Your task to perform on an android device: Go to notification settings Image 0: 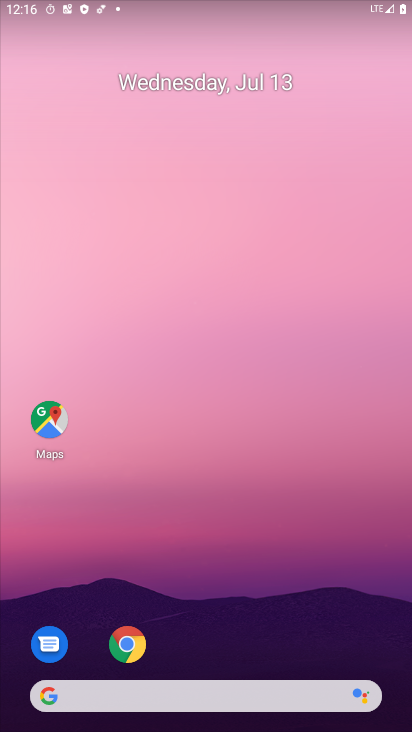
Step 0: drag from (204, 654) to (256, 226)
Your task to perform on an android device: Go to notification settings Image 1: 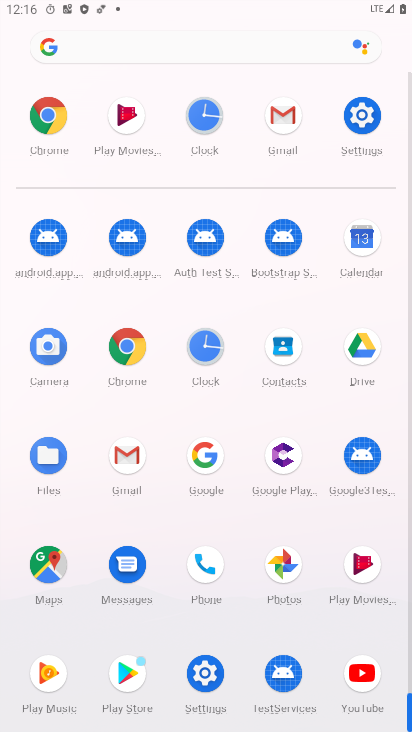
Step 1: click (359, 111)
Your task to perform on an android device: Go to notification settings Image 2: 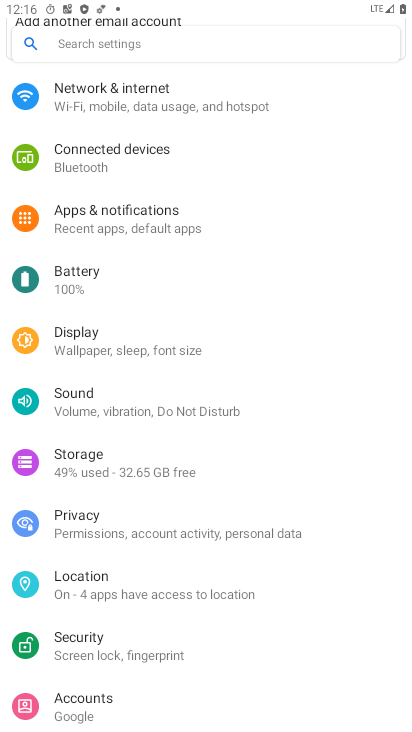
Step 2: click (120, 224)
Your task to perform on an android device: Go to notification settings Image 3: 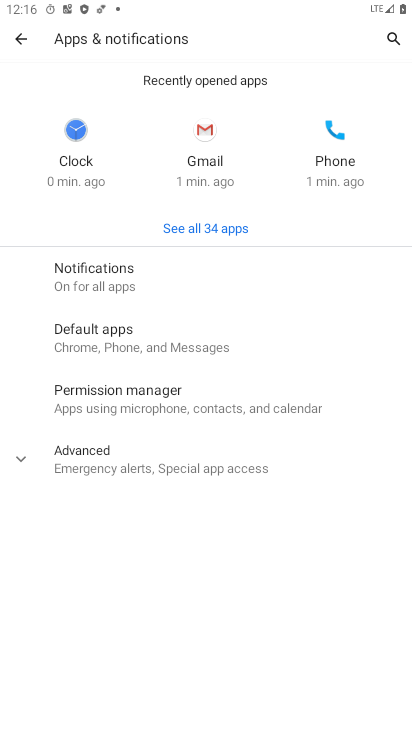
Step 3: click (124, 274)
Your task to perform on an android device: Go to notification settings Image 4: 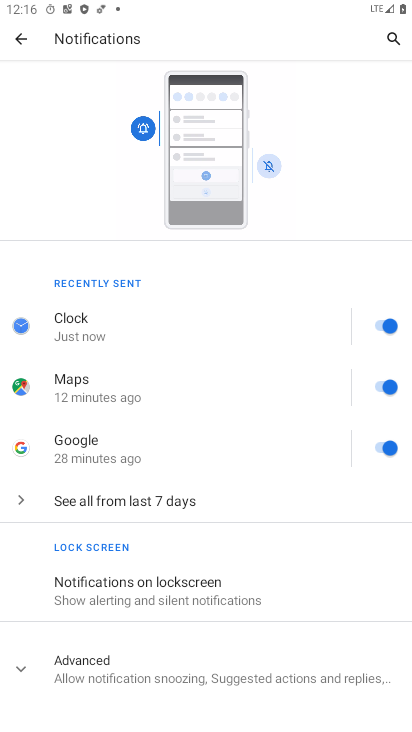
Step 4: task complete